Your task to perform on an android device: Go to Yahoo.com Image 0: 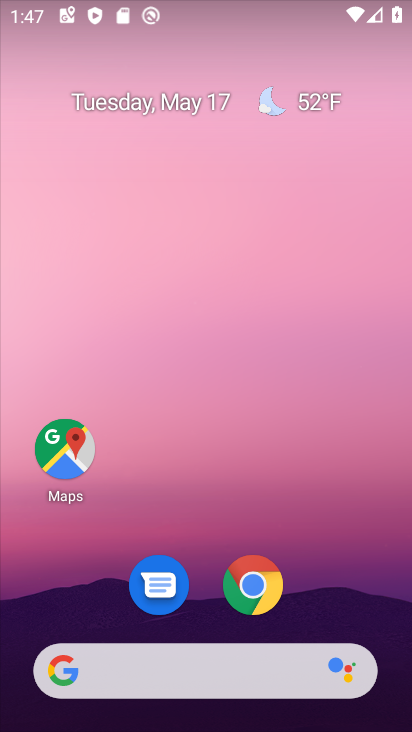
Step 0: click (221, 677)
Your task to perform on an android device: Go to Yahoo.com Image 1: 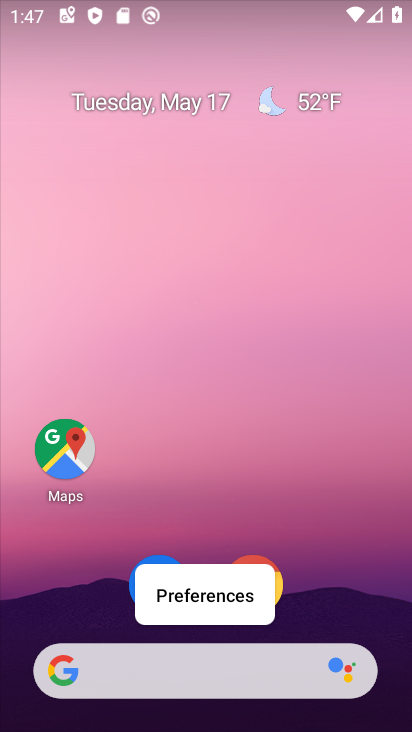
Step 1: click (221, 678)
Your task to perform on an android device: Go to Yahoo.com Image 2: 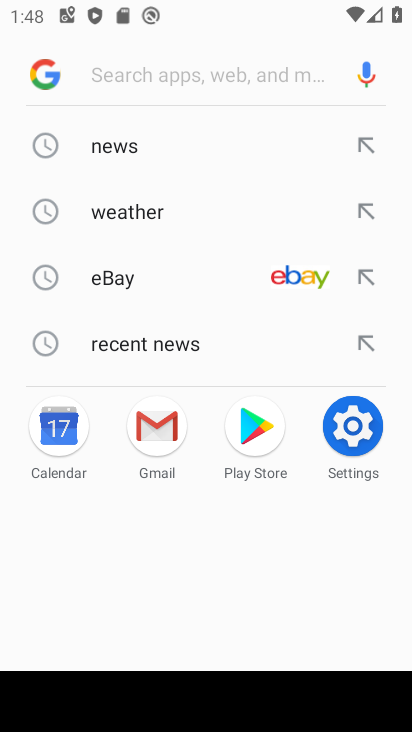
Step 2: type "yahoo.com"
Your task to perform on an android device: Go to Yahoo.com Image 3: 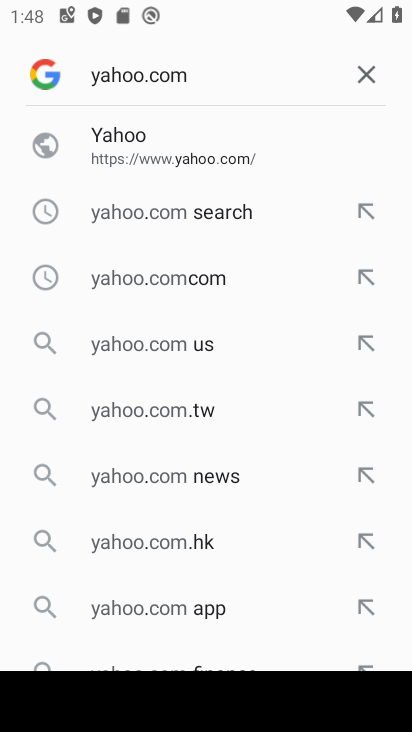
Step 3: click (108, 140)
Your task to perform on an android device: Go to Yahoo.com Image 4: 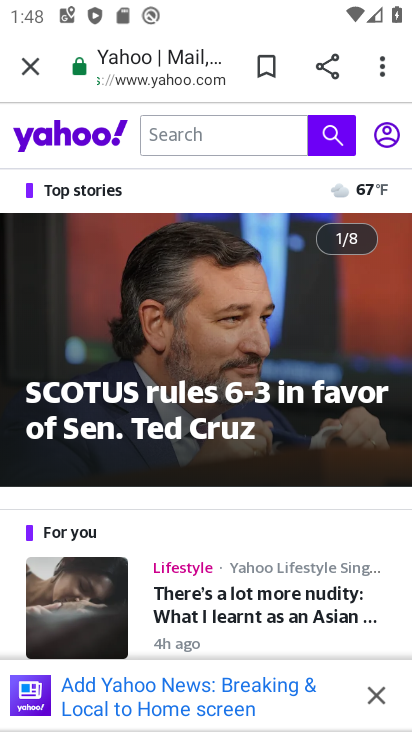
Step 4: task complete